Your task to perform on an android device: Open Chrome and go to the settings page Image 0: 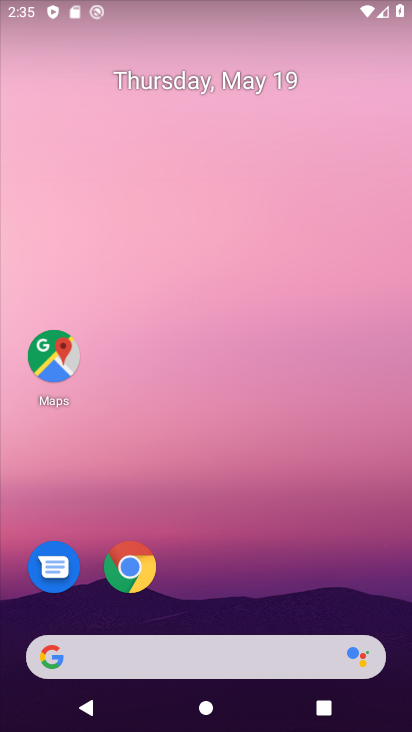
Step 0: drag from (214, 633) to (272, 20)
Your task to perform on an android device: Open Chrome and go to the settings page Image 1: 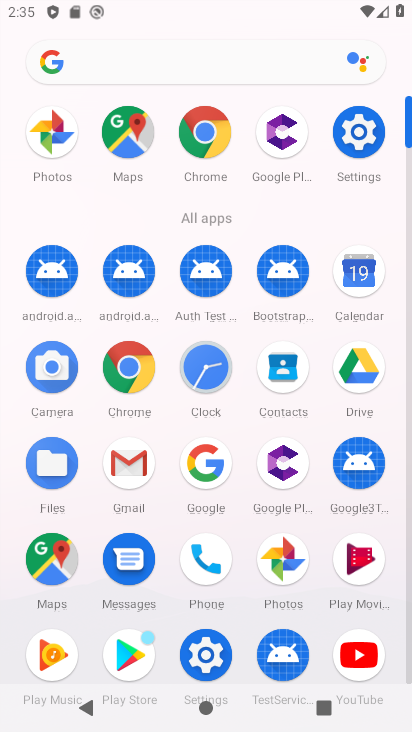
Step 1: click (131, 365)
Your task to perform on an android device: Open Chrome and go to the settings page Image 2: 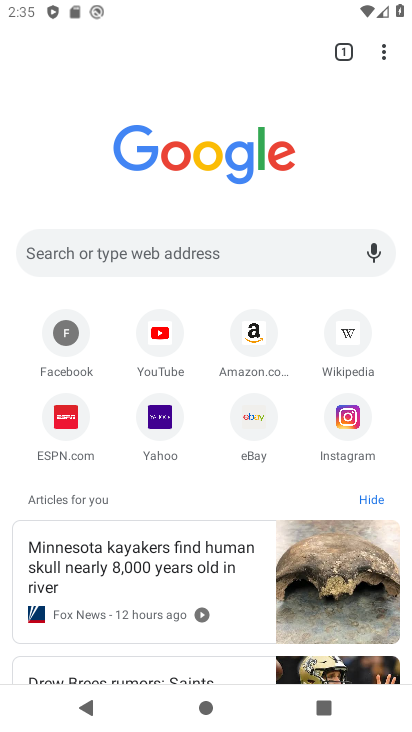
Step 2: click (387, 40)
Your task to perform on an android device: Open Chrome and go to the settings page Image 3: 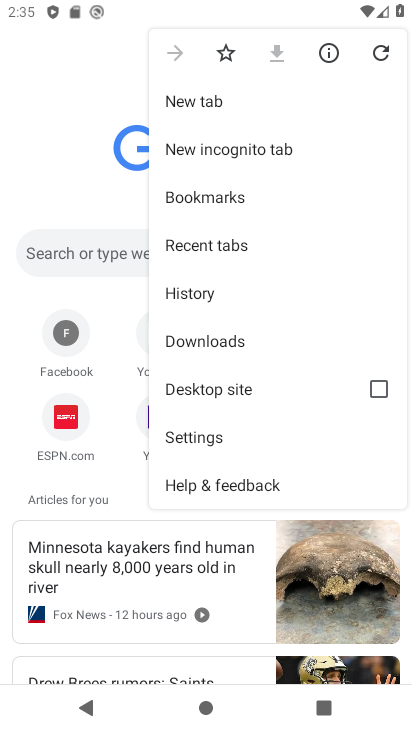
Step 3: click (196, 427)
Your task to perform on an android device: Open Chrome and go to the settings page Image 4: 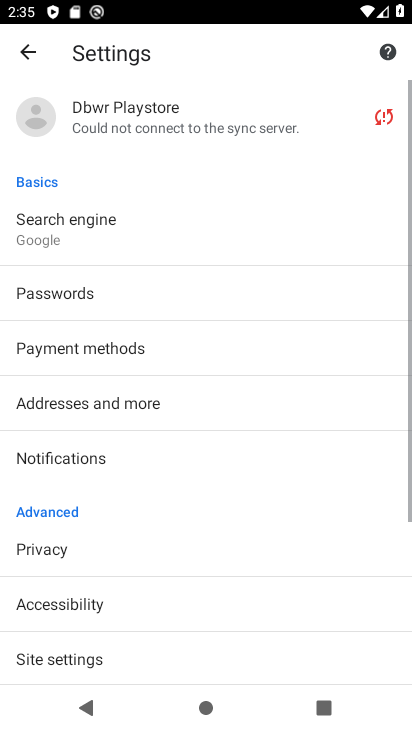
Step 4: task complete